Your task to perform on an android device: toggle improve location accuracy Image 0: 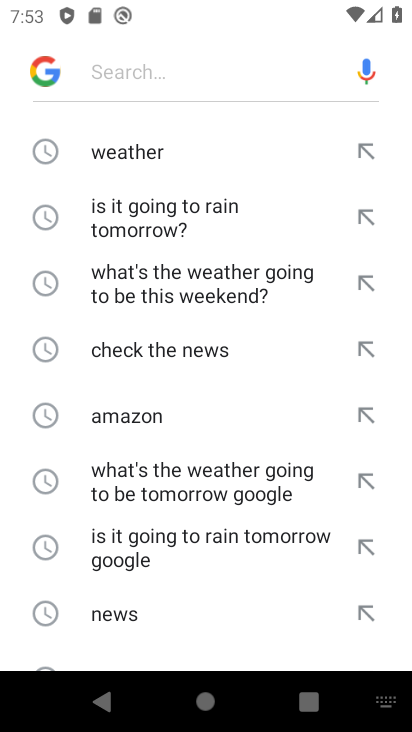
Step 0: press home button
Your task to perform on an android device: toggle improve location accuracy Image 1: 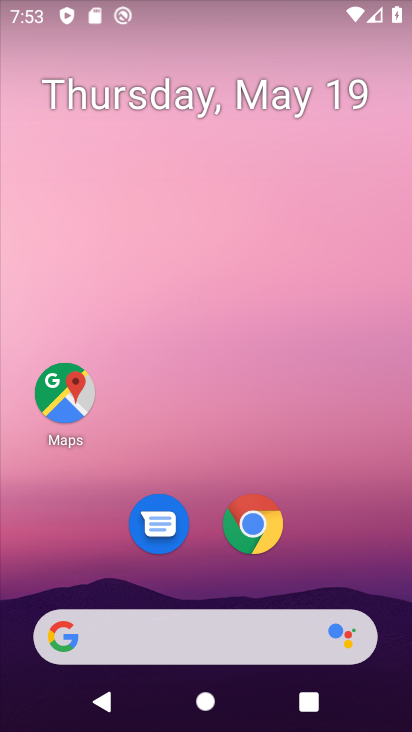
Step 1: drag from (274, 449) to (164, 33)
Your task to perform on an android device: toggle improve location accuracy Image 2: 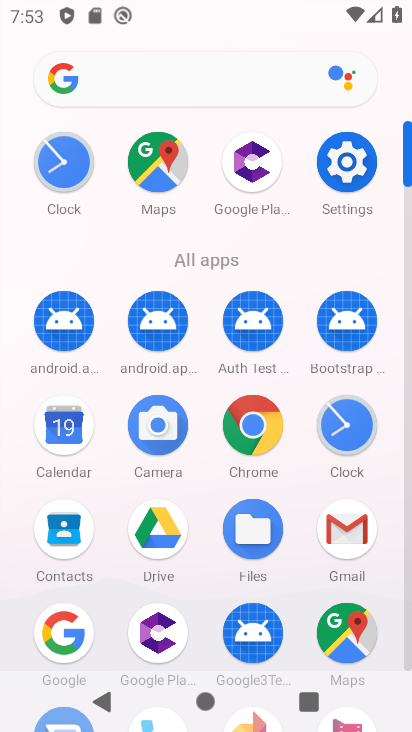
Step 2: click (342, 171)
Your task to perform on an android device: toggle improve location accuracy Image 3: 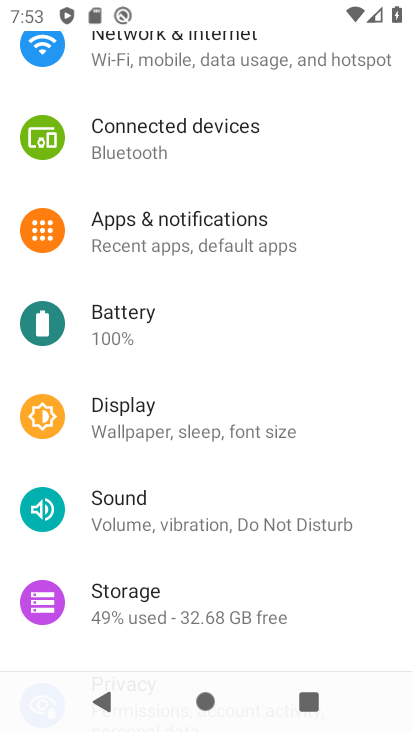
Step 3: drag from (241, 453) to (213, 108)
Your task to perform on an android device: toggle improve location accuracy Image 4: 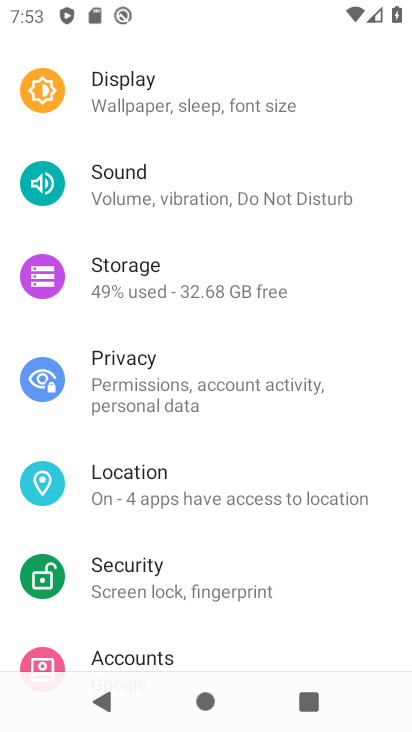
Step 4: click (211, 492)
Your task to perform on an android device: toggle improve location accuracy Image 5: 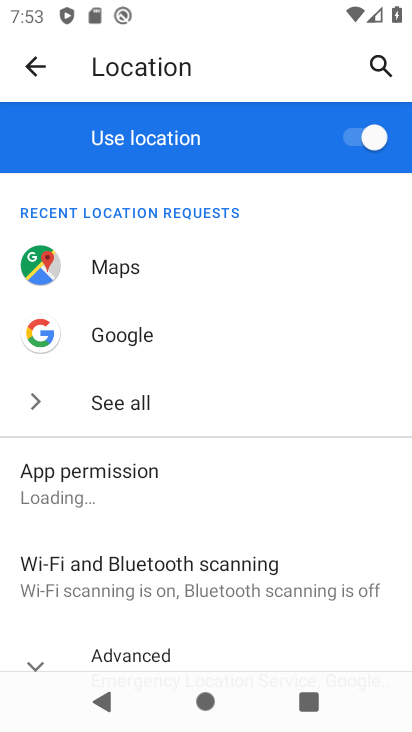
Step 5: drag from (162, 574) to (155, 294)
Your task to perform on an android device: toggle improve location accuracy Image 6: 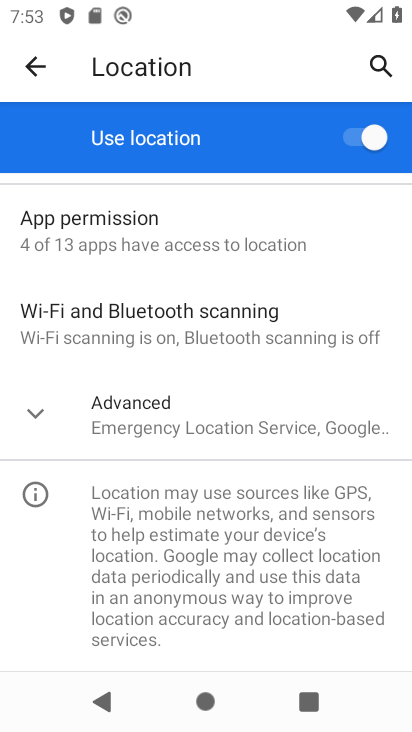
Step 6: click (34, 406)
Your task to perform on an android device: toggle improve location accuracy Image 7: 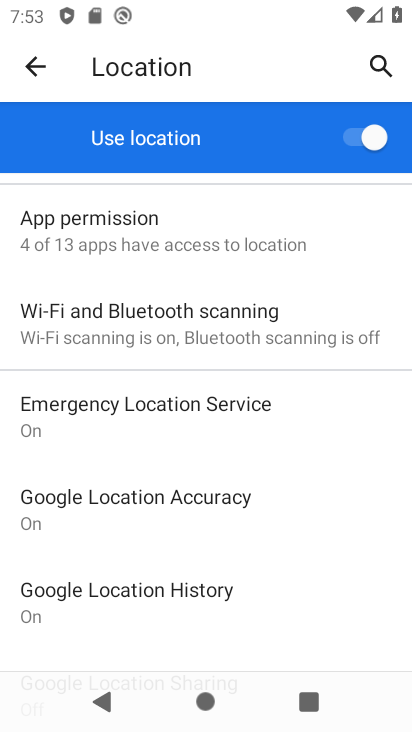
Step 7: click (103, 495)
Your task to perform on an android device: toggle improve location accuracy Image 8: 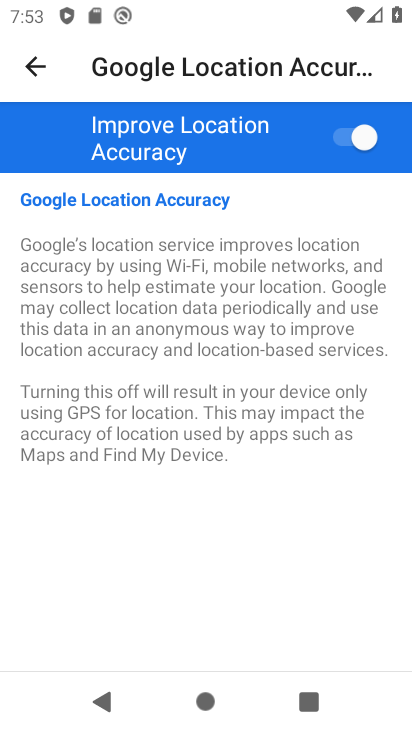
Step 8: click (357, 135)
Your task to perform on an android device: toggle improve location accuracy Image 9: 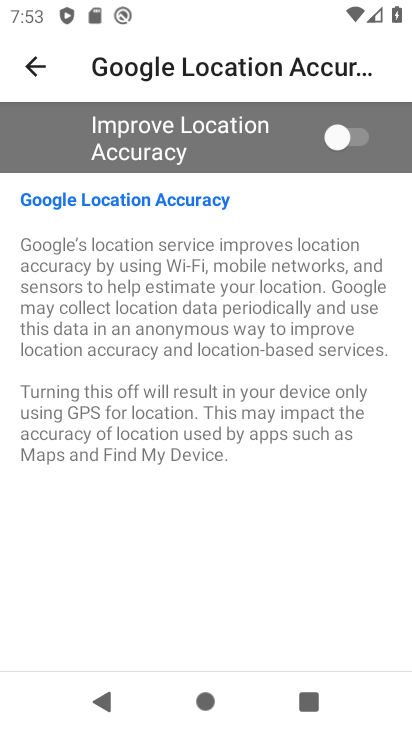
Step 9: task complete